Your task to perform on an android device: turn off translation in the chrome app Image 0: 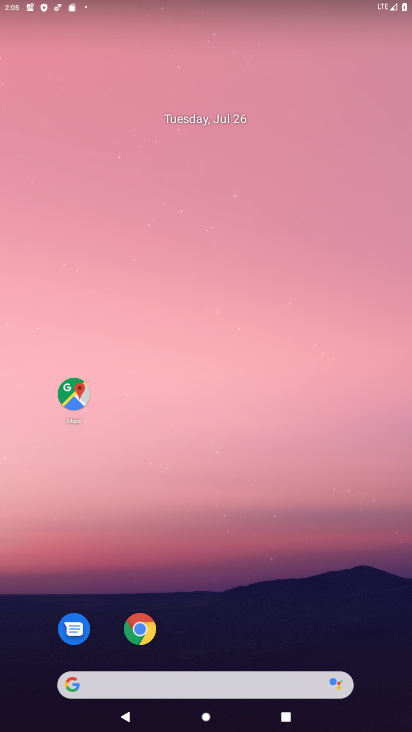
Step 0: click (130, 628)
Your task to perform on an android device: turn off translation in the chrome app Image 1: 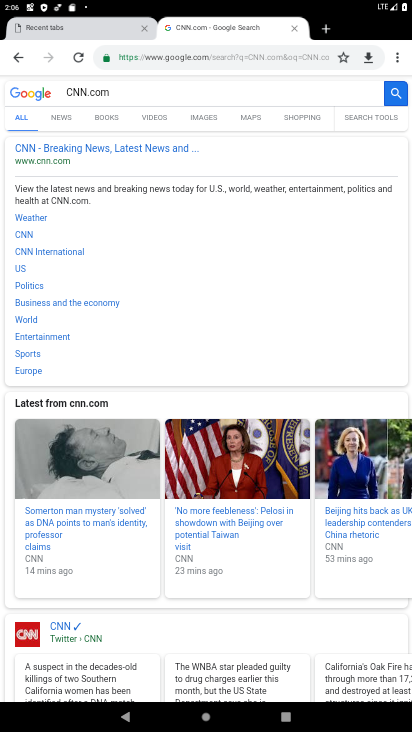
Step 1: click (395, 51)
Your task to perform on an android device: turn off translation in the chrome app Image 2: 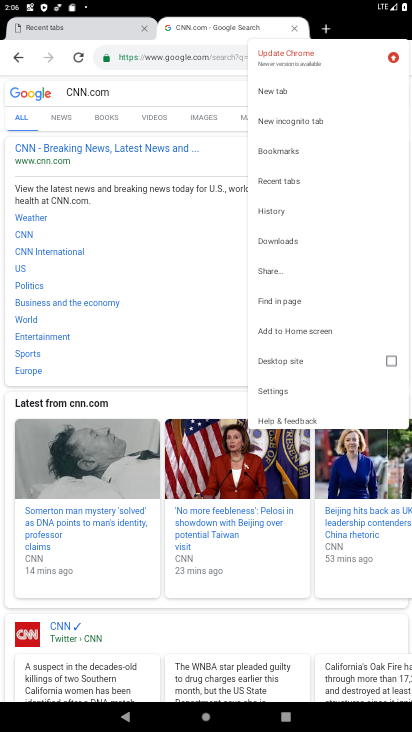
Step 2: click (284, 391)
Your task to perform on an android device: turn off translation in the chrome app Image 3: 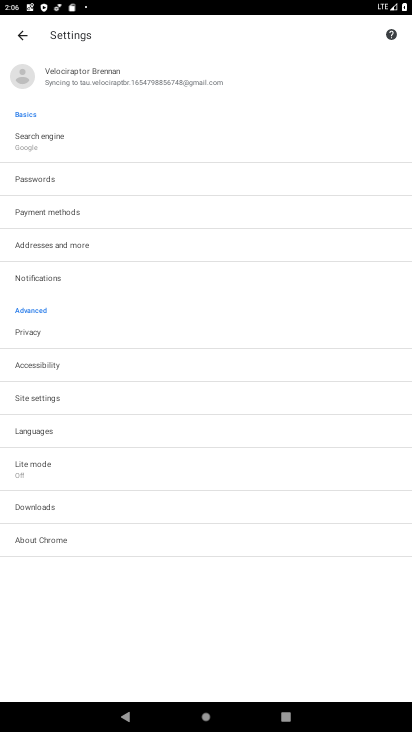
Step 3: click (52, 427)
Your task to perform on an android device: turn off translation in the chrome app Image 4: 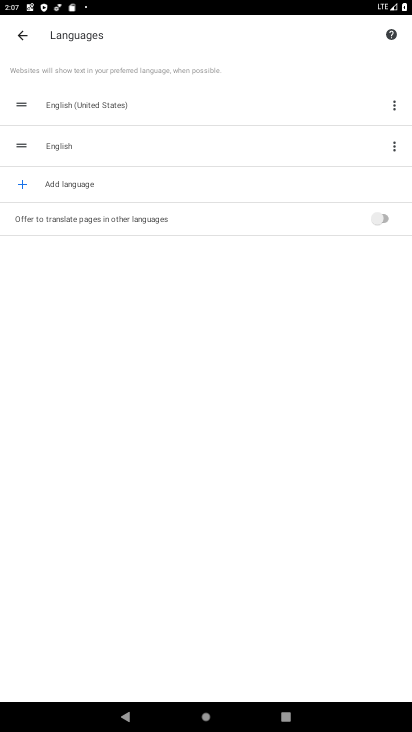
Step 4: task complete